Your task to perform on an android device: Is it going to rain this weekend? Image 0: 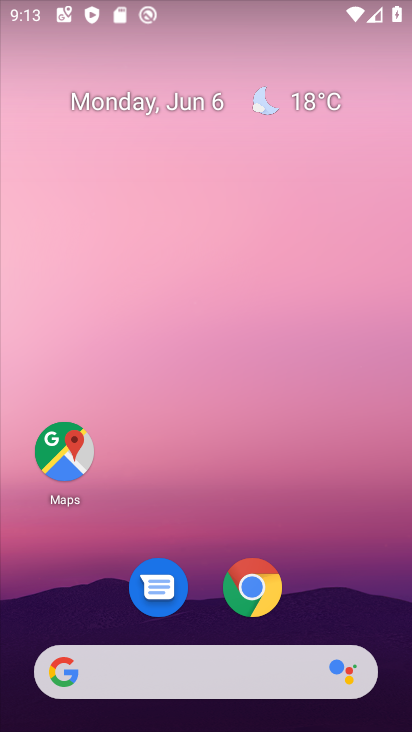
Step 0: drag from (196, 664) to (174, 176)
Your task to perform on an android device: Is it going to rain this weekend? Image 1: 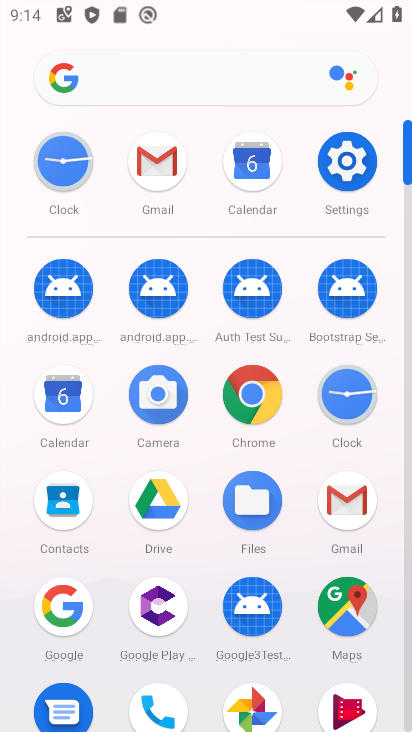
Step 1: click (65, 603)
Your task to perform on an android device: Is it going to rain this weekend? Image 2: 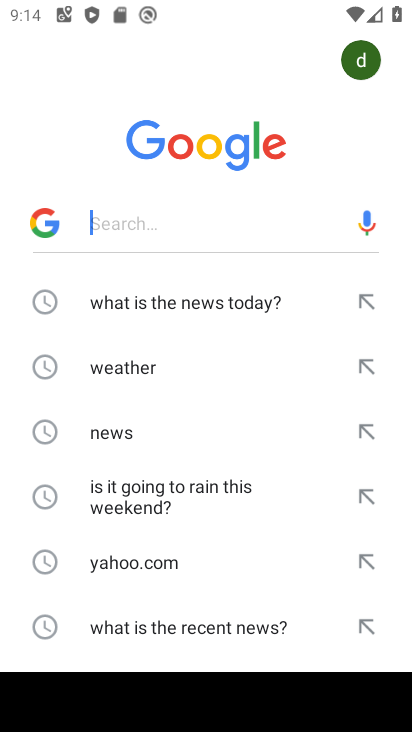
Step 2: click (151, 361)
Your task to perform on an android device: Is it going to rain this weekend? Image 3: 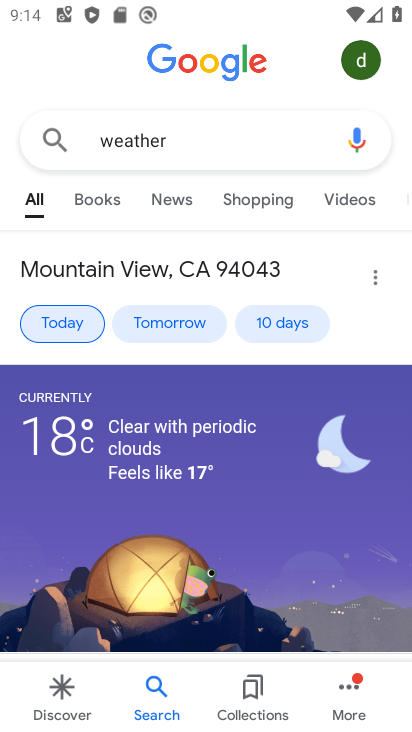
Step 3: click (263, 320)
Your task to perform on an android device: Is it going to rain this weekend? Image 4: 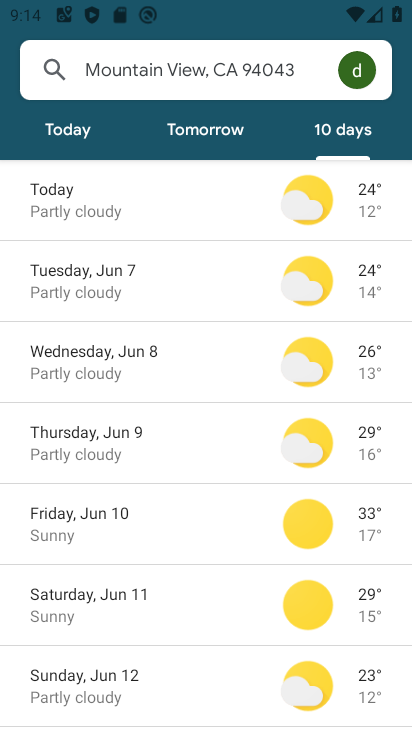
Step 4: task complete